Your task to perform on an android device: toggle wifi Image 0: 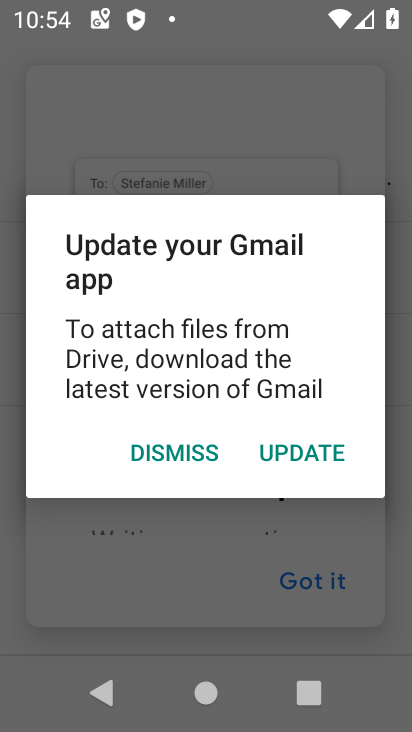
Step 0: press home button
Your task to perform on an android device: toggle wifi Image 1: 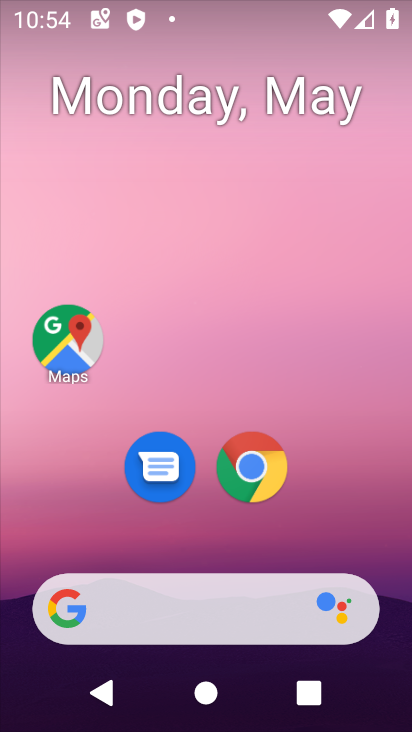
Step 1: drag from (385, 657) to (370, 119)
Your task to perform on an android device: toggle wifi Image 2: 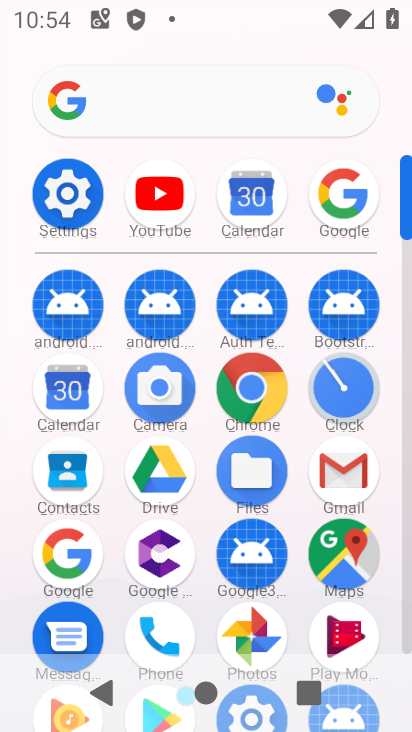
Step 2: click (43, 193)
Your task to perform on an android device: toggle wifi Image 3: 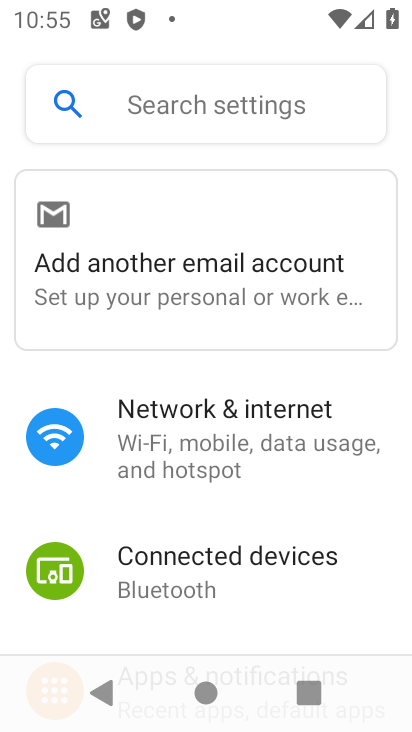
Step 3: click (152, 425)
Your task to perform on an android device: toggle wifi Image 4: 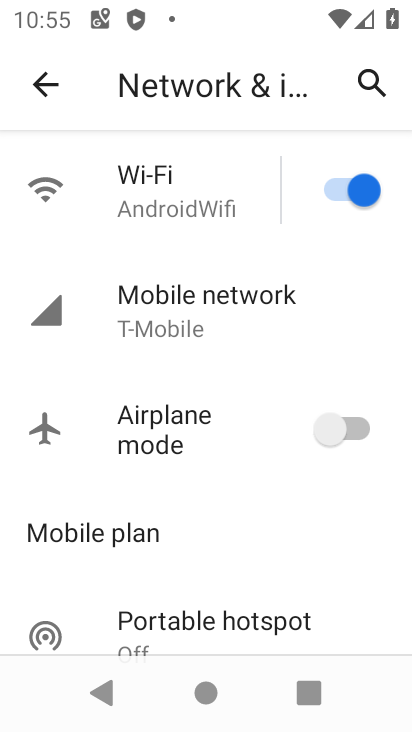
Step 4: click (333, 190)
Your task to perform on an android device: toggle wifi Image 5: 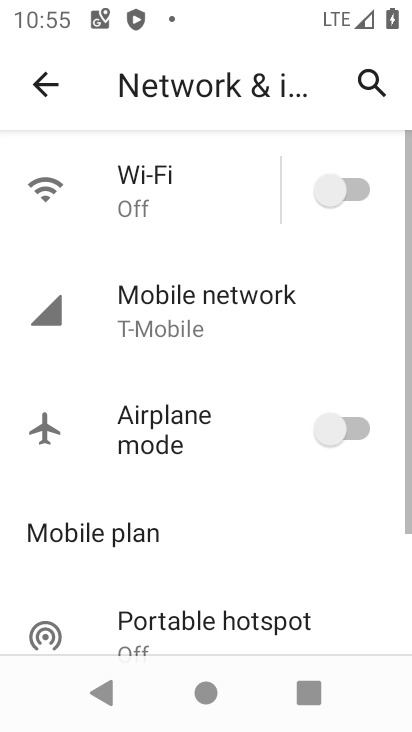
Step 5: task complete